Your task to perform on an android device: What is the recent news? Image 0: 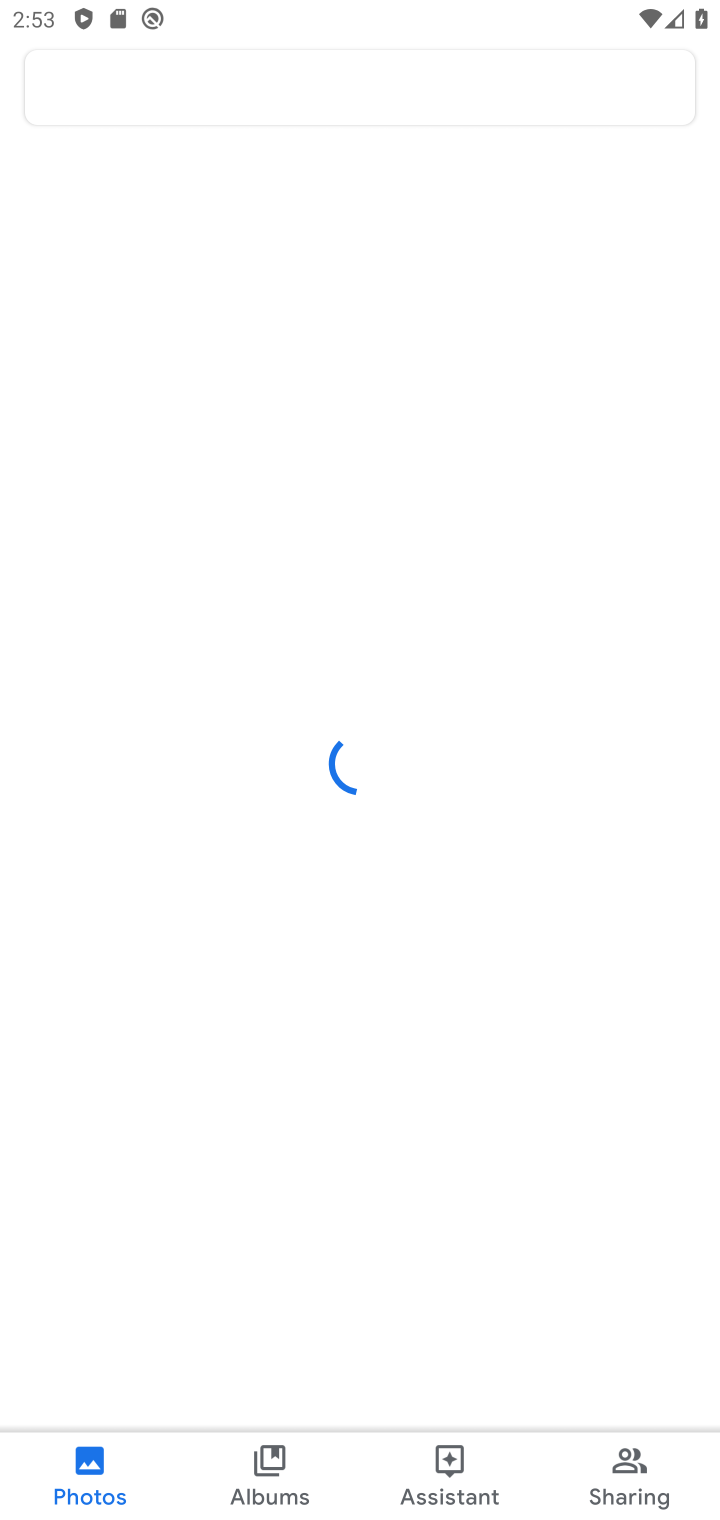
Step 0: press back button
Your task to perform on an android device: What is the recent news? Image 1: 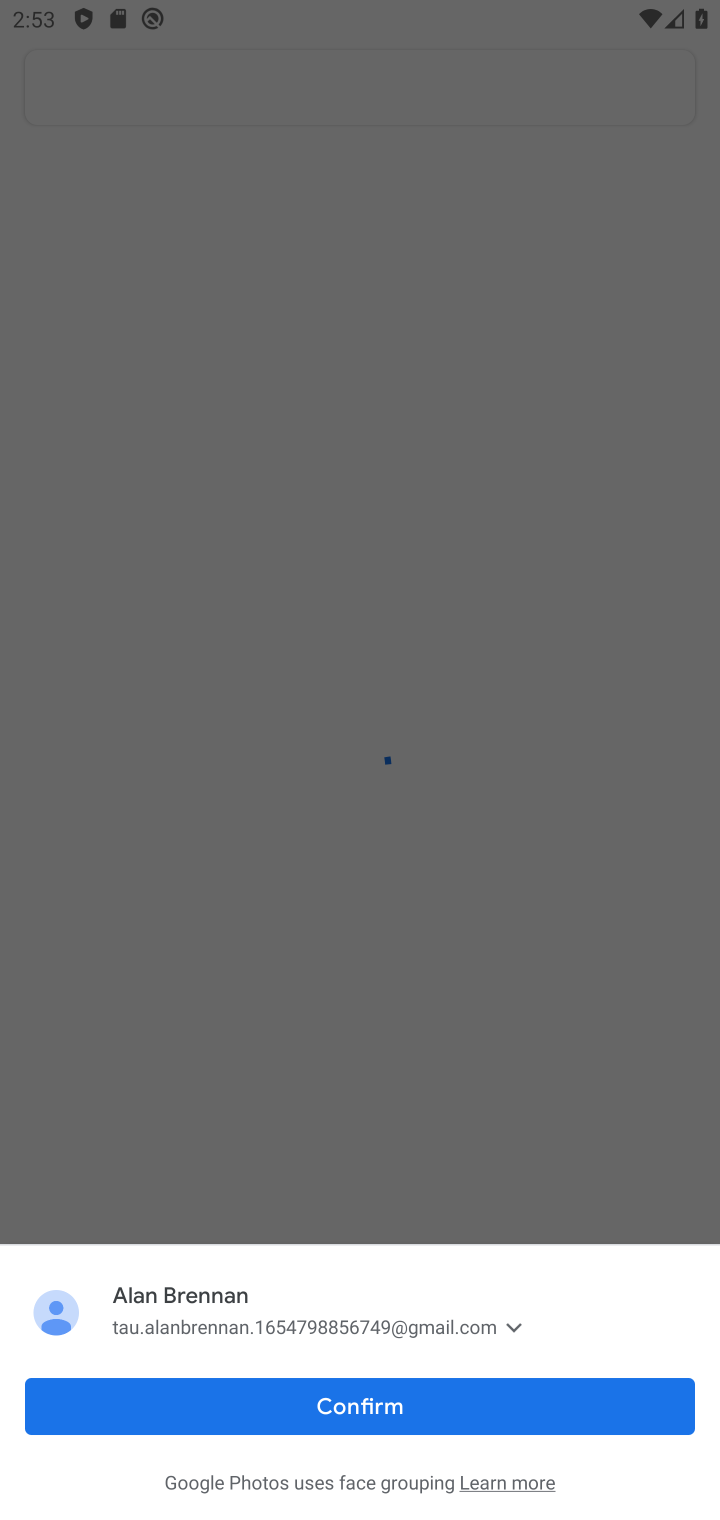
Step 1: press home button
Your task to perform on an android device: What is the recent news? Image 2: 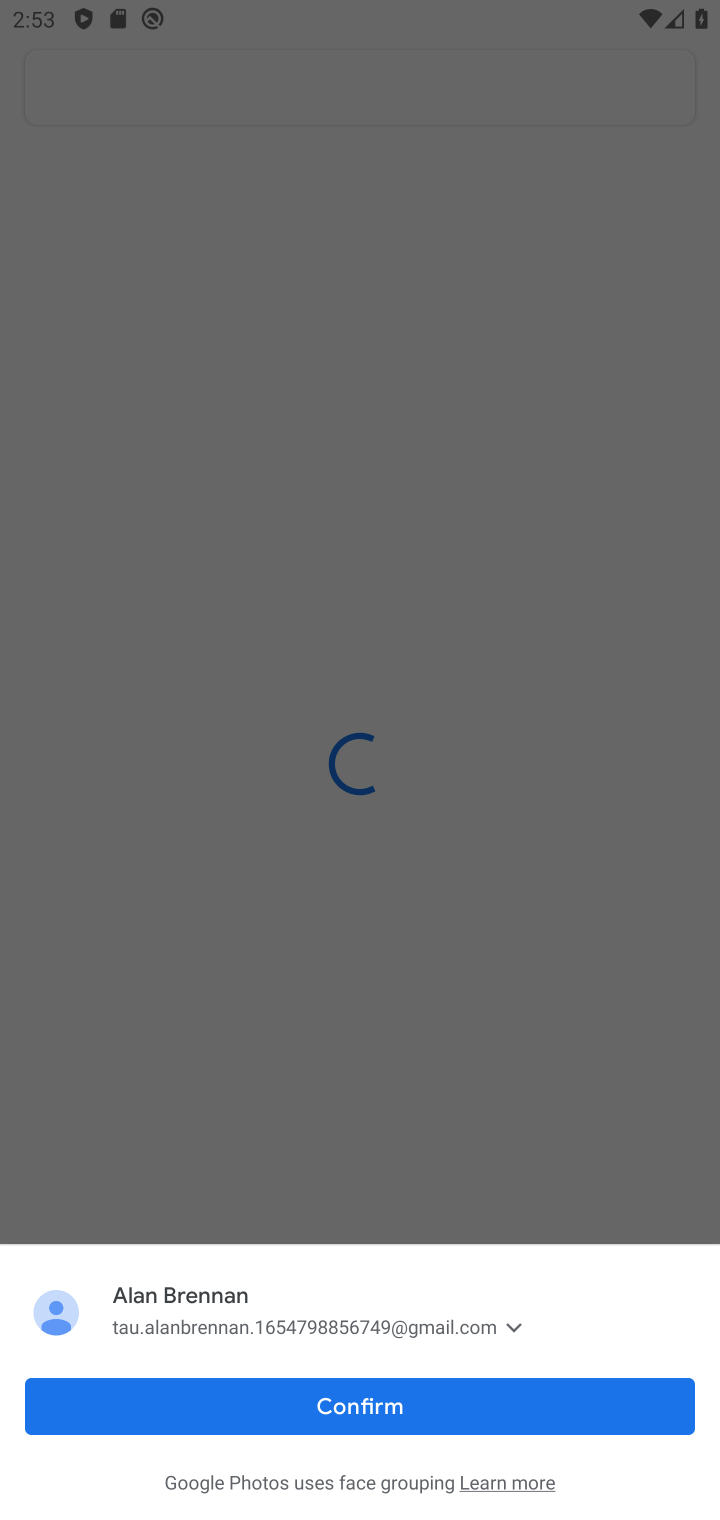
Step 2: click (225, 98)
Your task to perform on an android device: What is the recent news? Image 3: 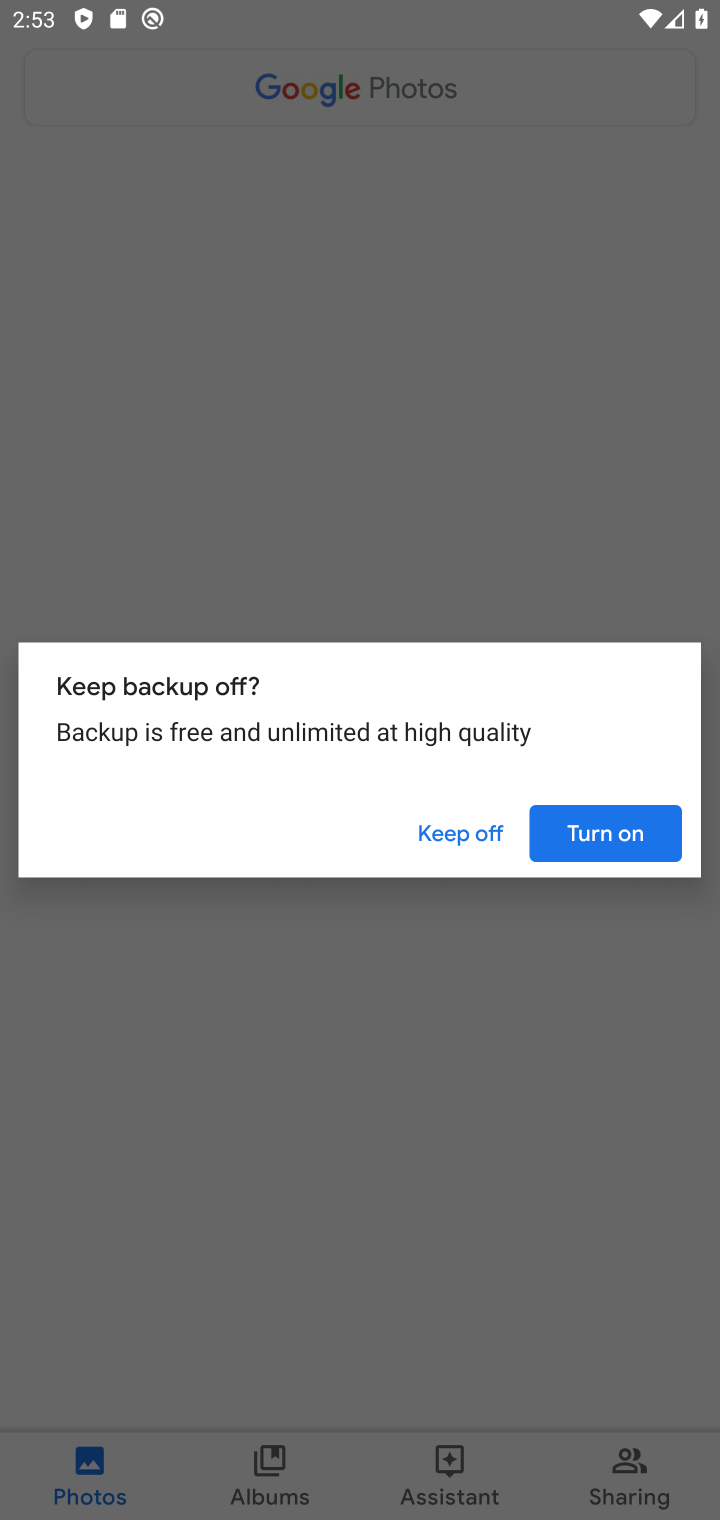
Step 3: press back button
Your task to perform on an android device: What is the recent news? Image 4: 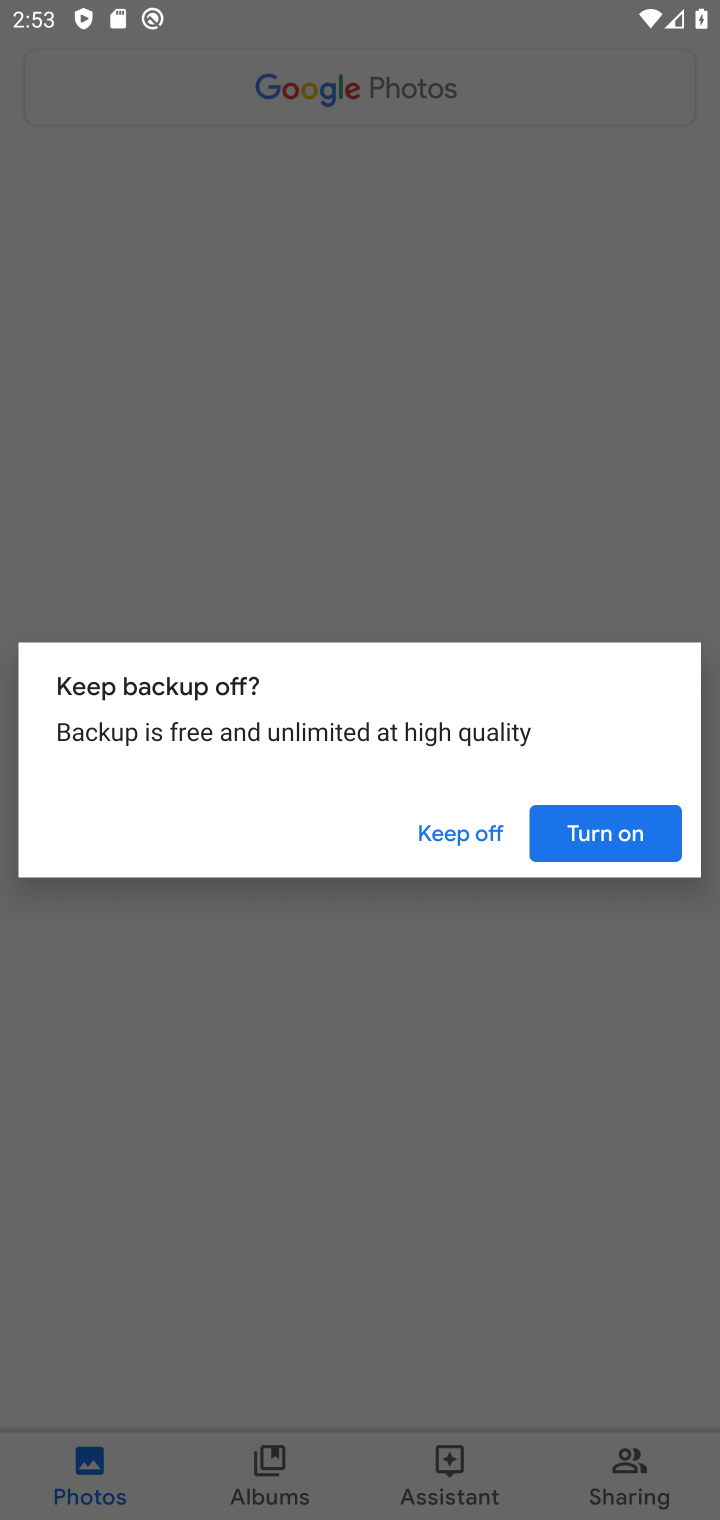
Step 4: click (441, 812)
Your task to perform on an android device: What is the recent news? Image 5: 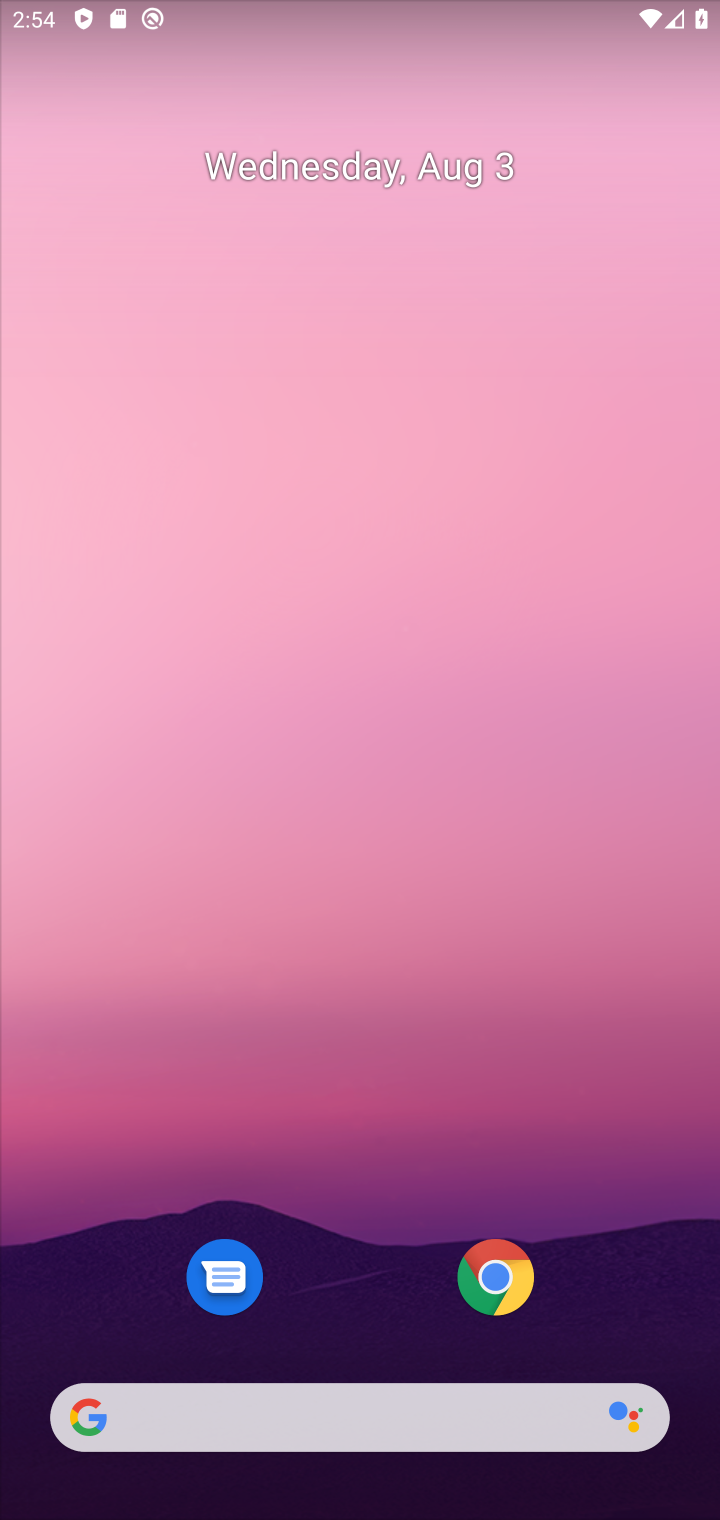
Step 5: drag from (225, 790) to (83, 88)
Your task to perform on an android device: What is the recent news? Image 6: 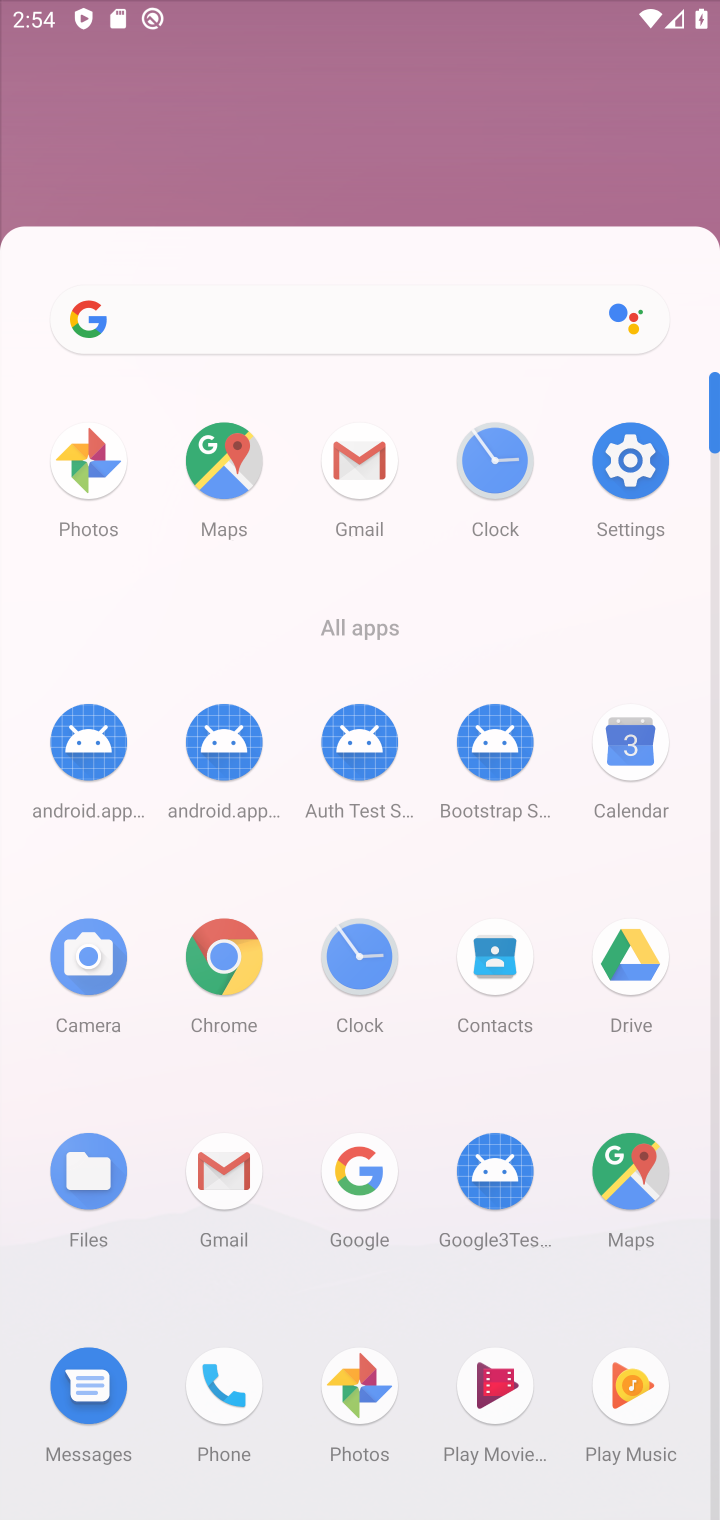
Step 6: drag from (367, 542) to (207, 42)
Your task to perform on an android device: What is the recent news? Image 7: 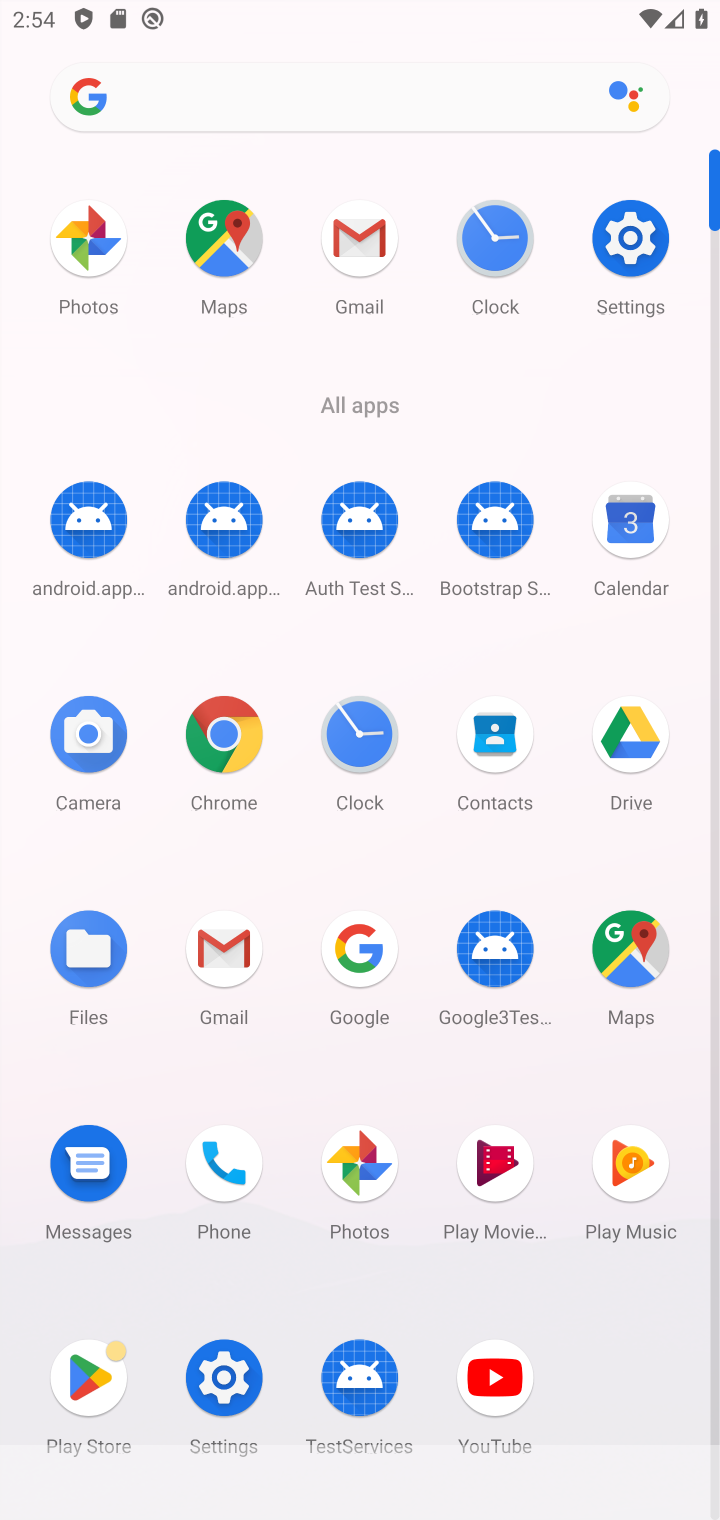
Step 7: click (225, 735)
Your task to perform on an android device: What is the recent news? Image 8: 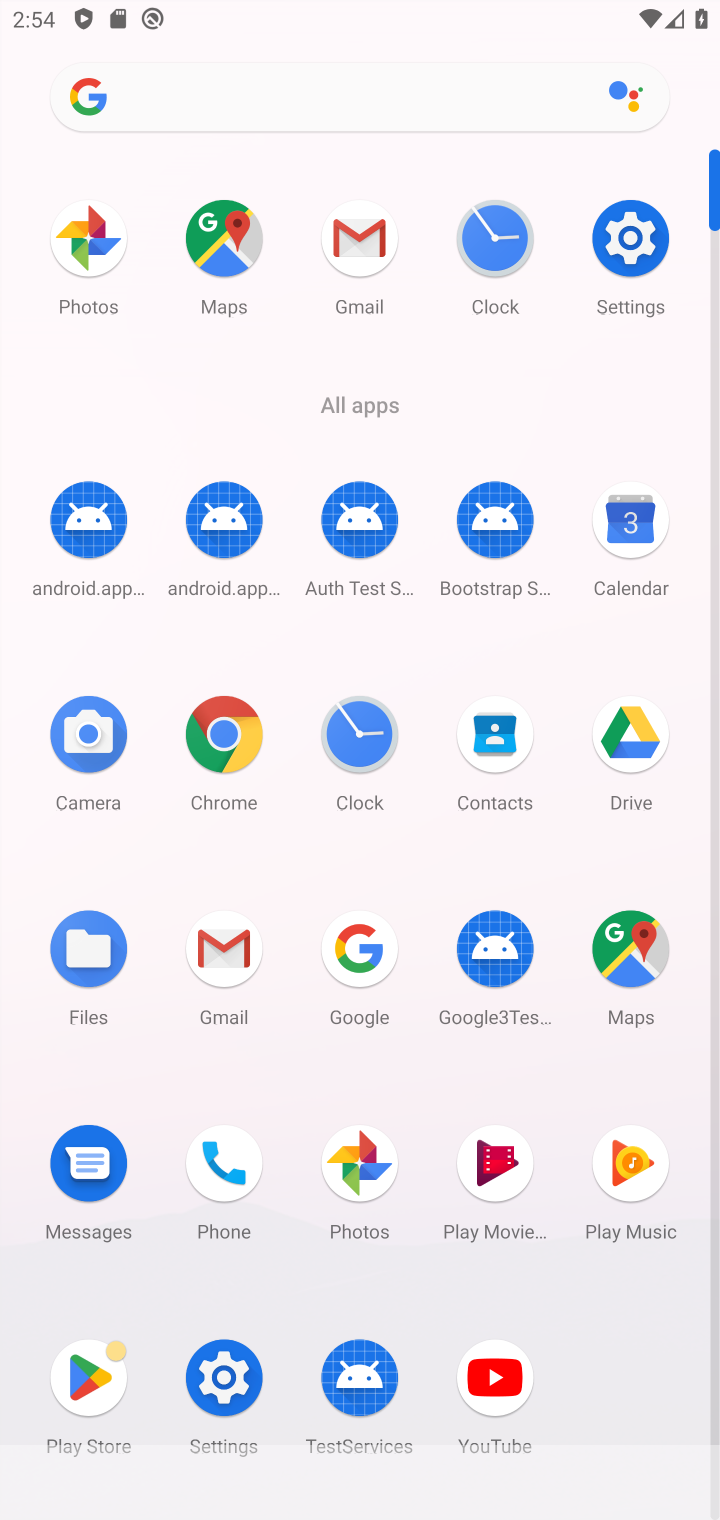
Step 8: click (223, 733)
Your task to perform on an android device: What is the recent news? Image 9: 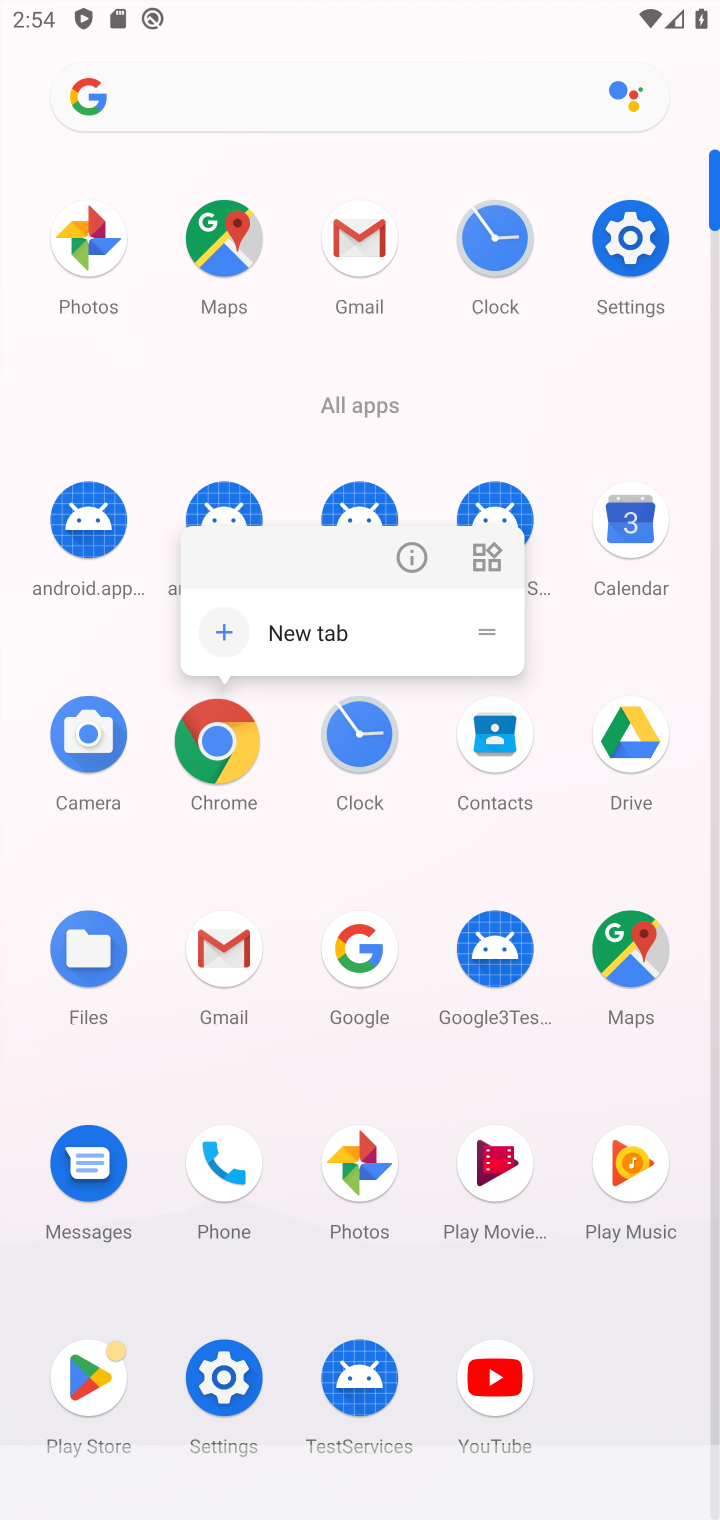
Step 9: click (312, 630)
Your task to perform on an android device: What is the recent news? Image 10: 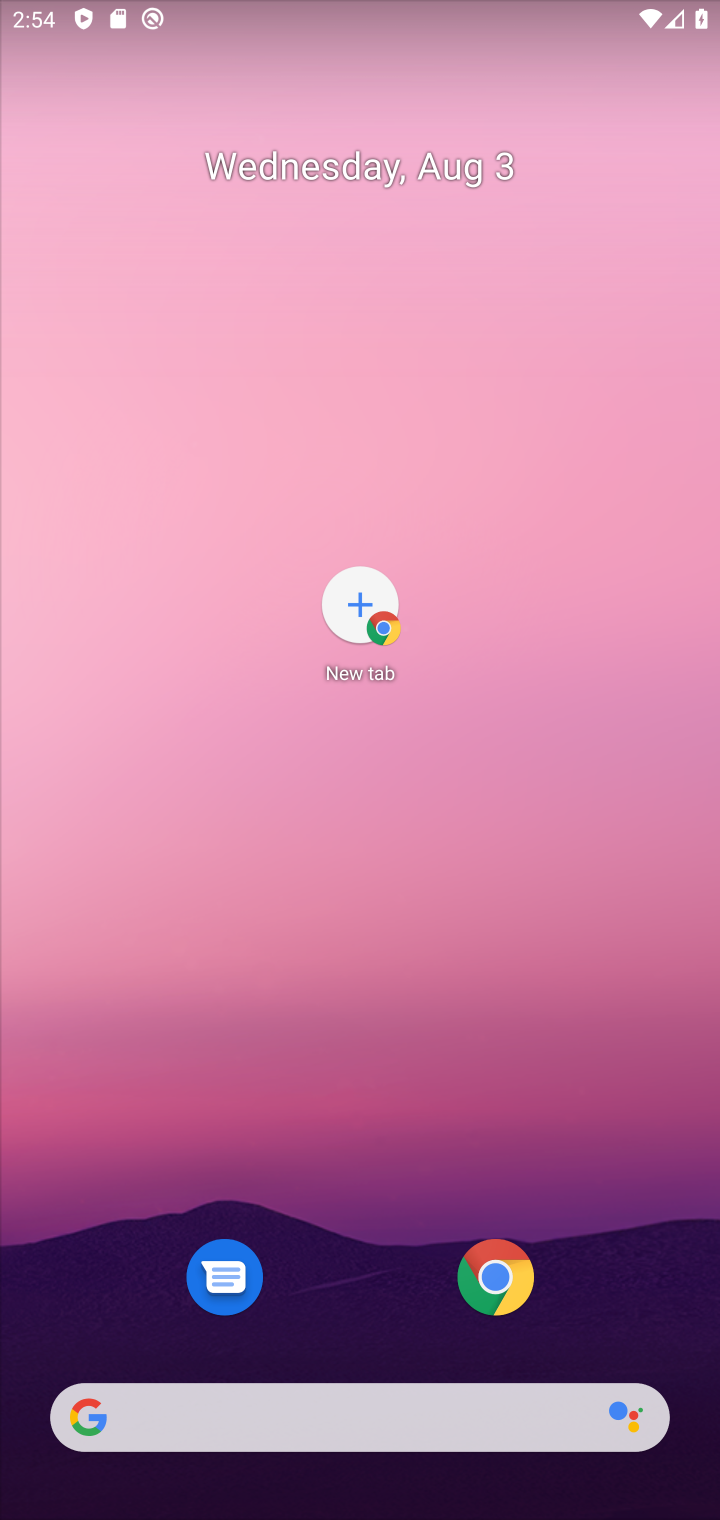
Step 10: click (256, 0)
Your task to perform on an android device: What is the recent news? Image 11: 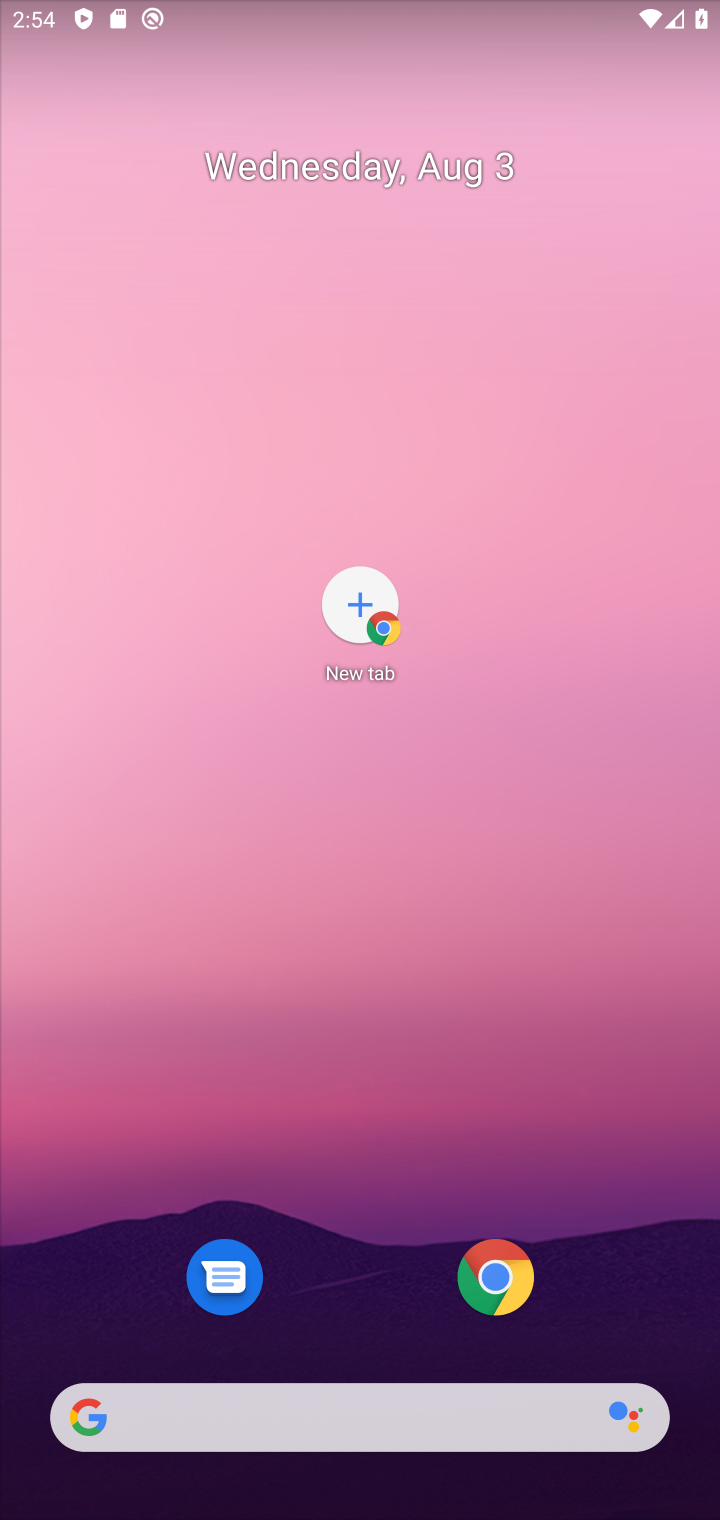
Step 11: drag from (295, 337) to (239, 51)
Your task to perform on an android device: What is the recent news? Image 12: 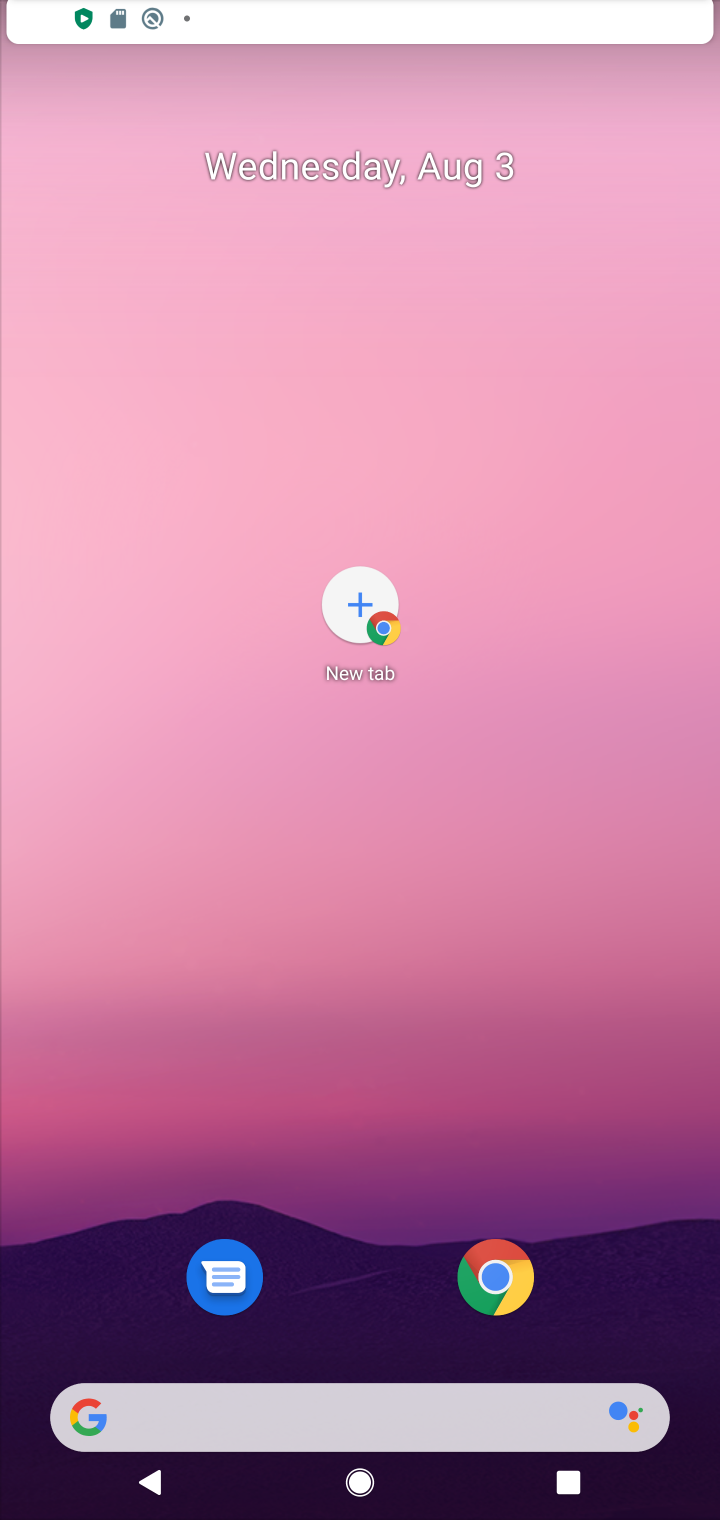
Step 12: click (423, 69)
Your task to perform on an android device: What is the recent news? Image 13: 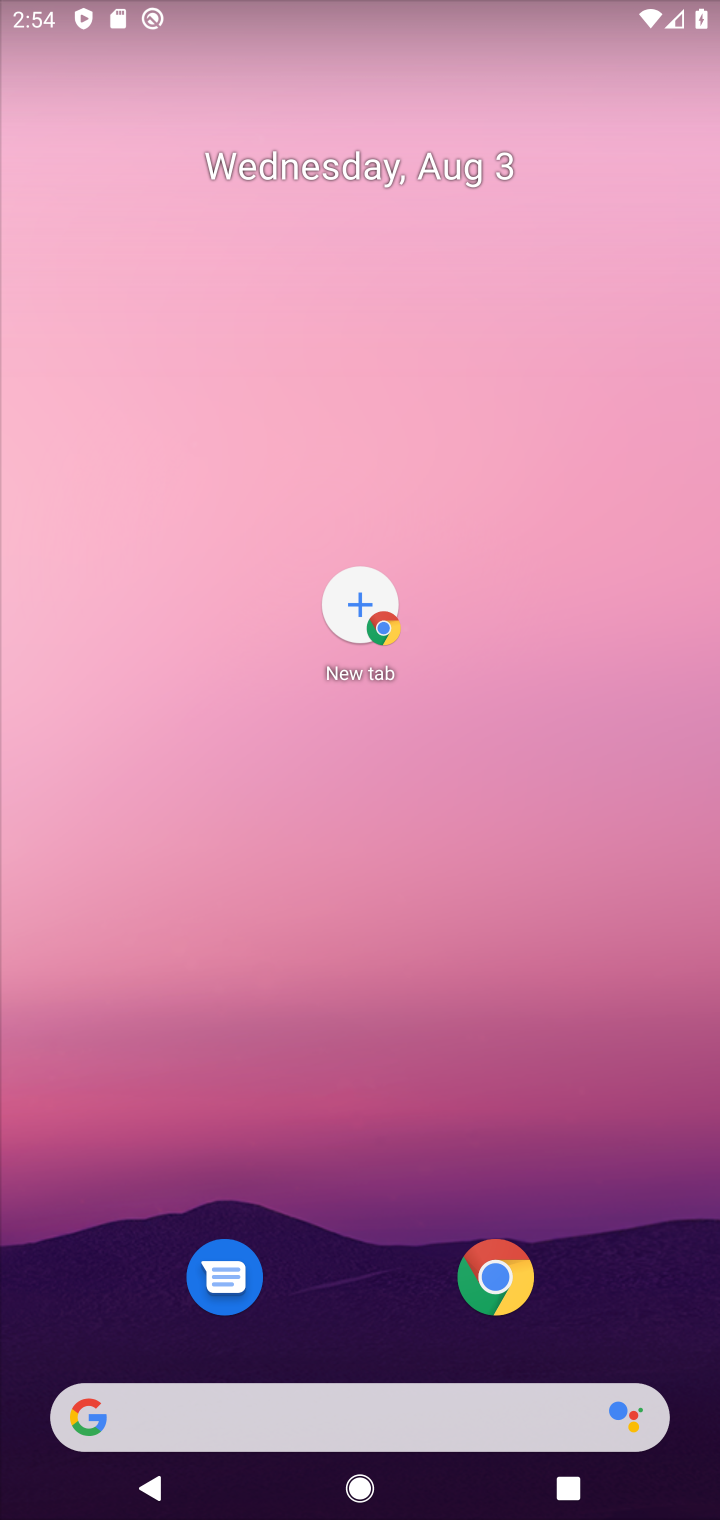
Step 13: drag from (434, 911) to (256, 130)
Your task to perform on an android device: What is the recent news? Image 14: 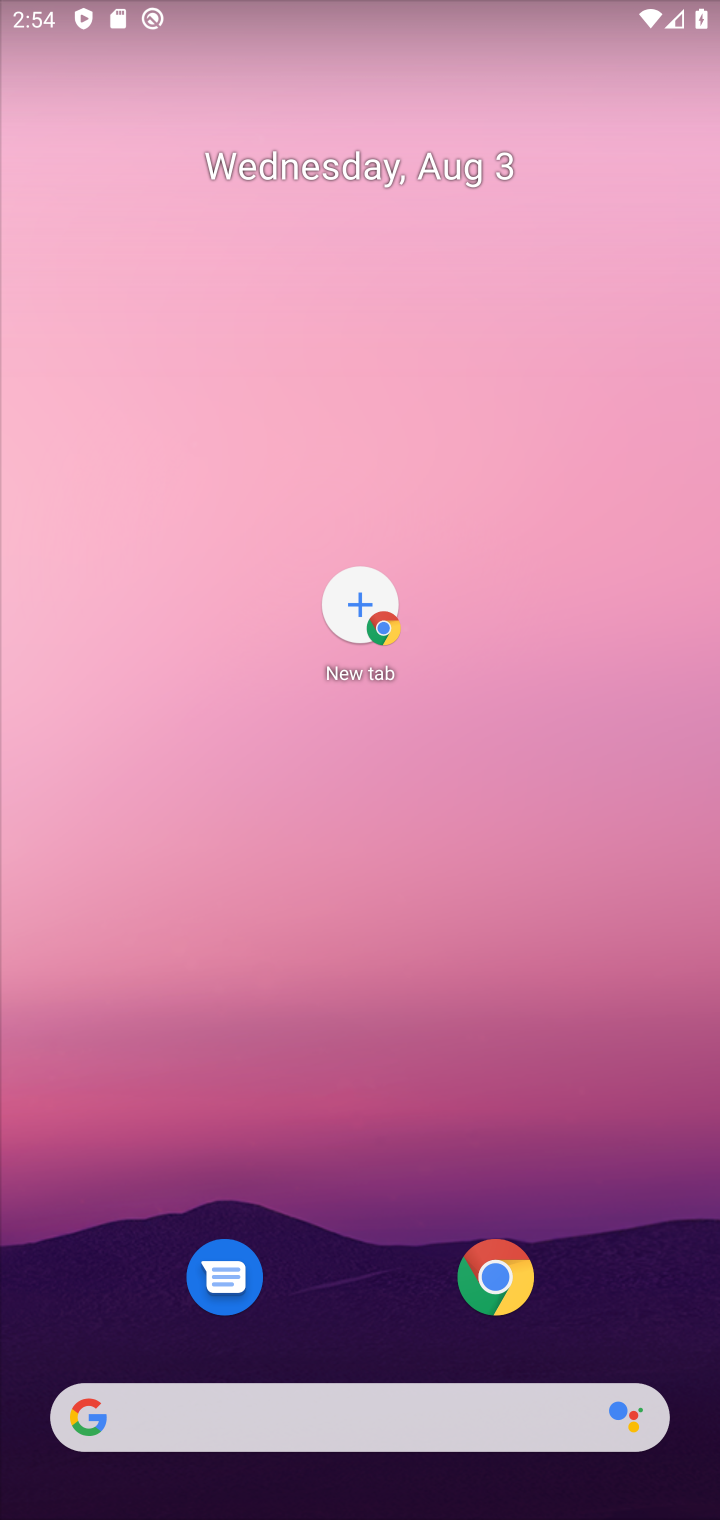
Step 14: drag from (502, 888) to (369, 15)
Your task to perform on an android device: What is the recent news? Image 15: 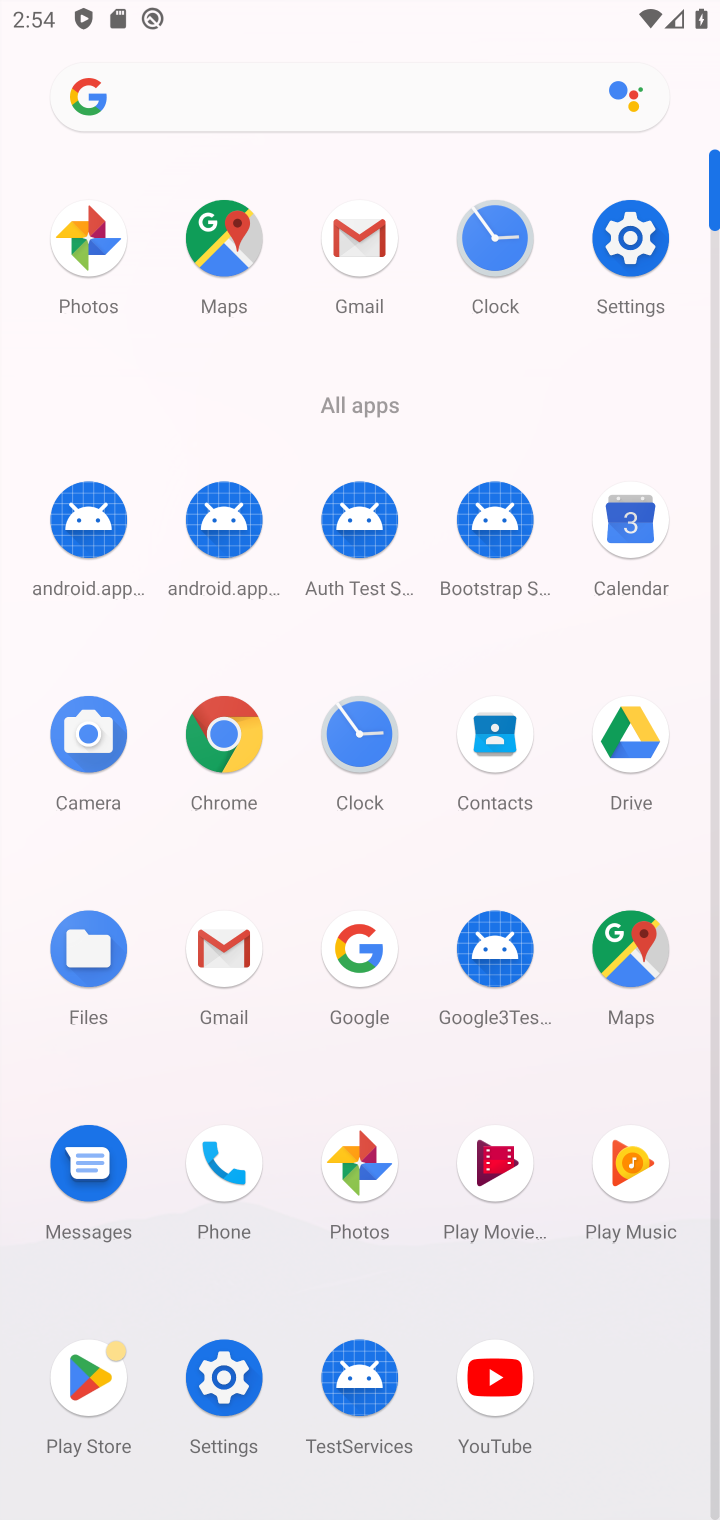
Step 15: click (211, 726)
Your task to perform on an android device: What is the recent news? Image 16: 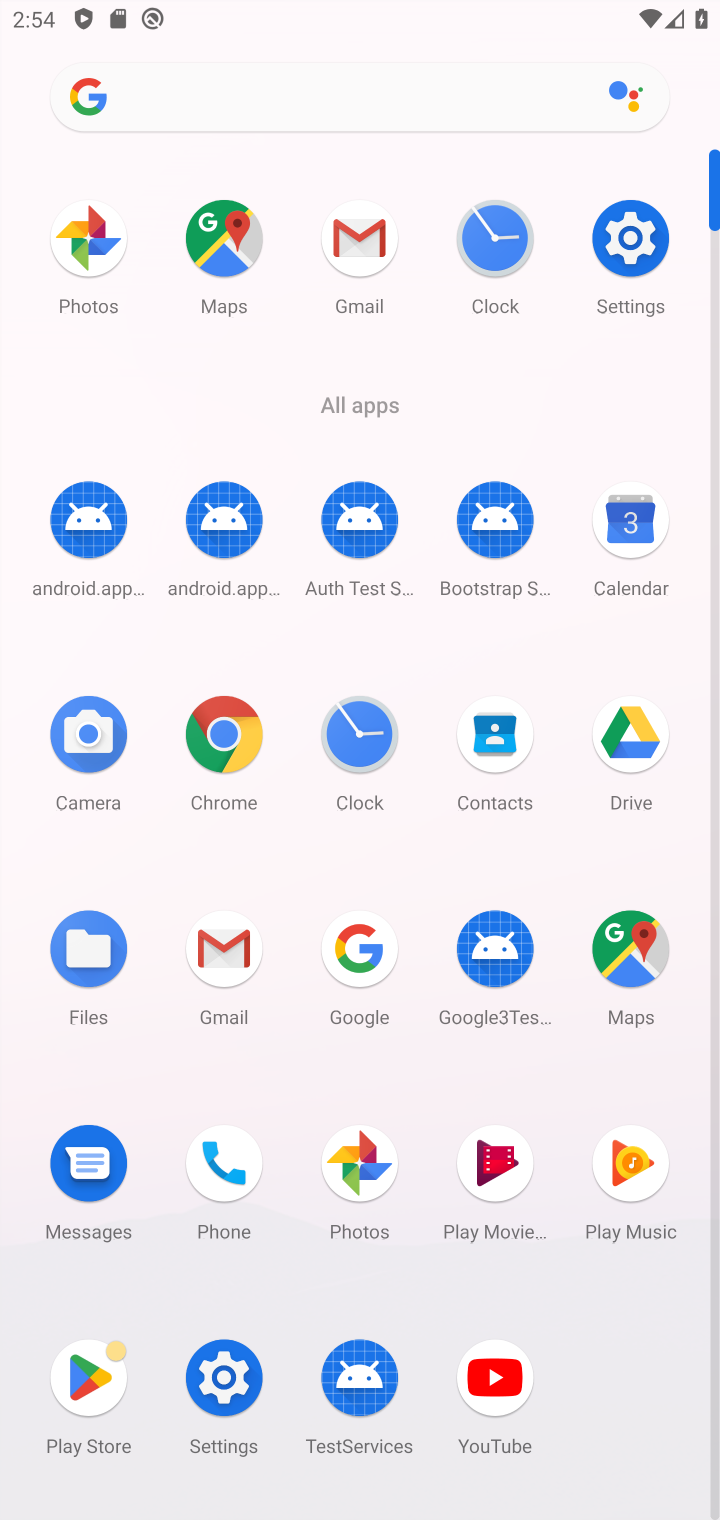
Step 16: click (207, 730)
Your task to perform on an android device: What is the recent news? Image 17: 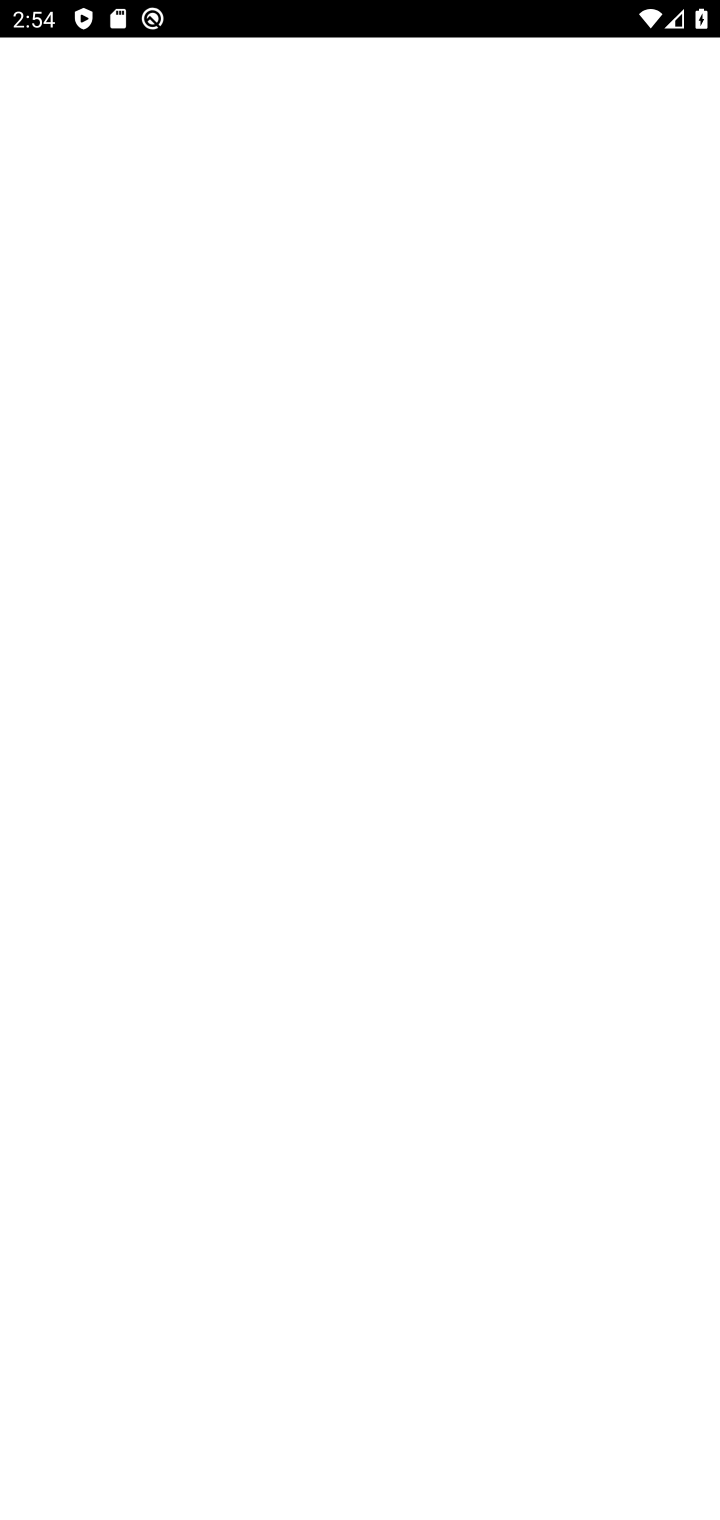
Step 17: click (222, 734)
Your task to perform on an android device: What is the recent news? Image 18: 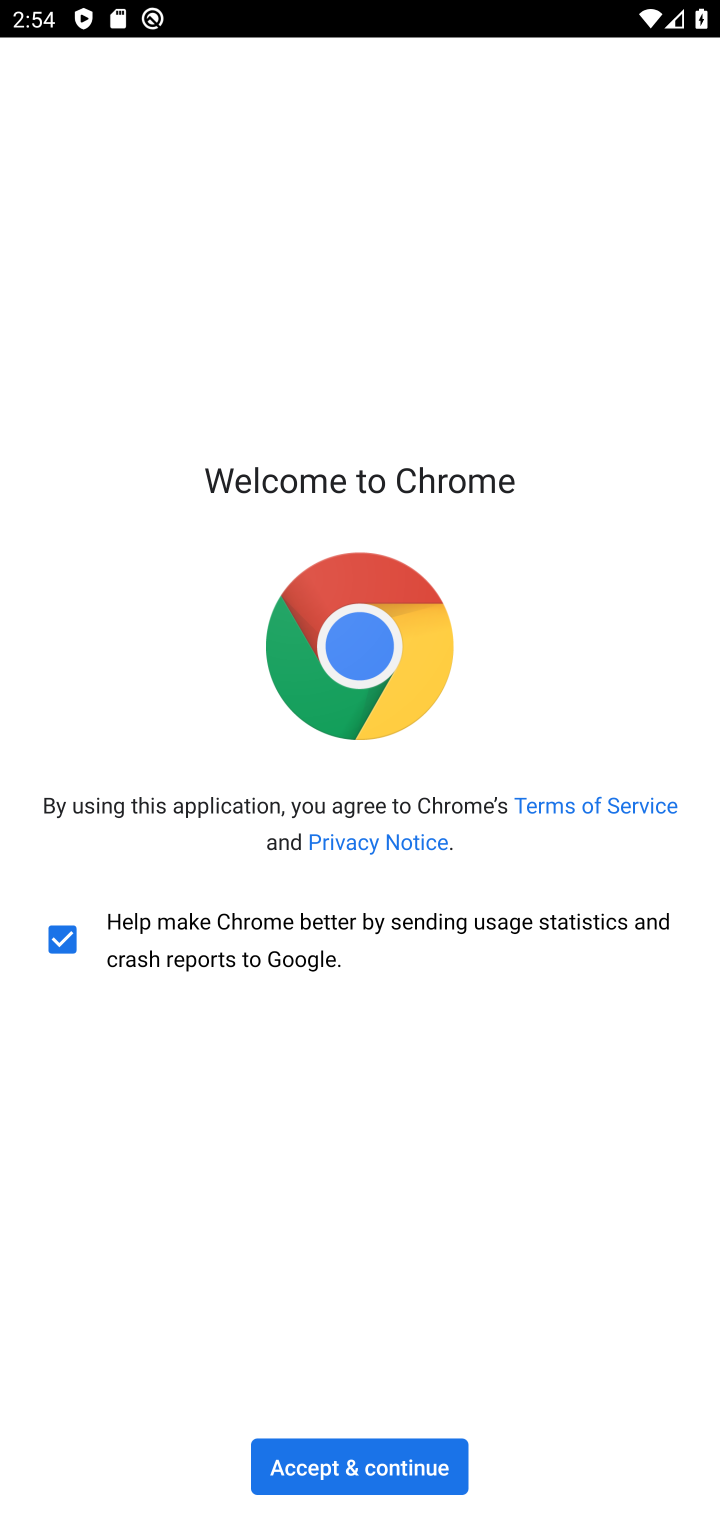
Step 18: click (342, 1462)
Your task to perform on an android device: What is the recent news? Image 19: 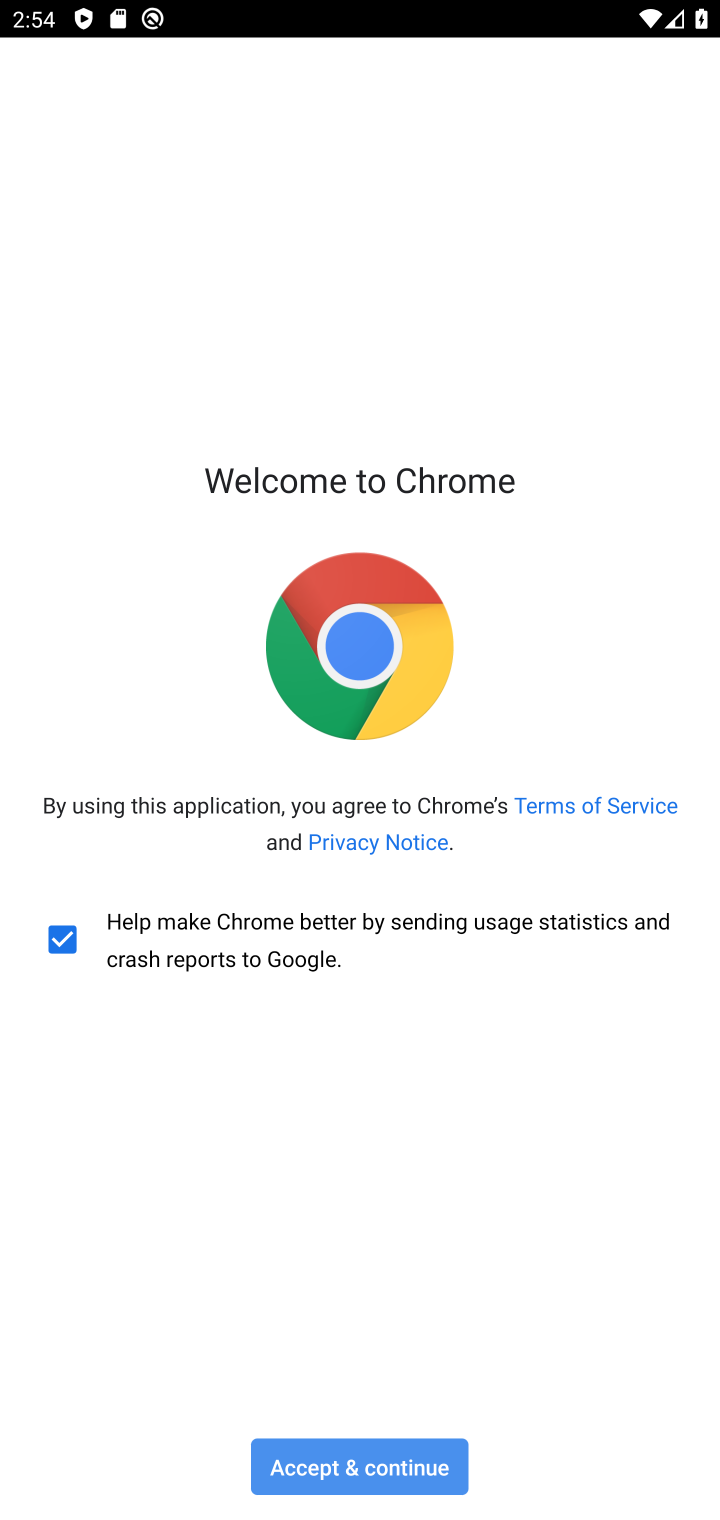
Step 19: click (349, 1456)
Your task to perform on an android device: What is the recent news? Image 20: 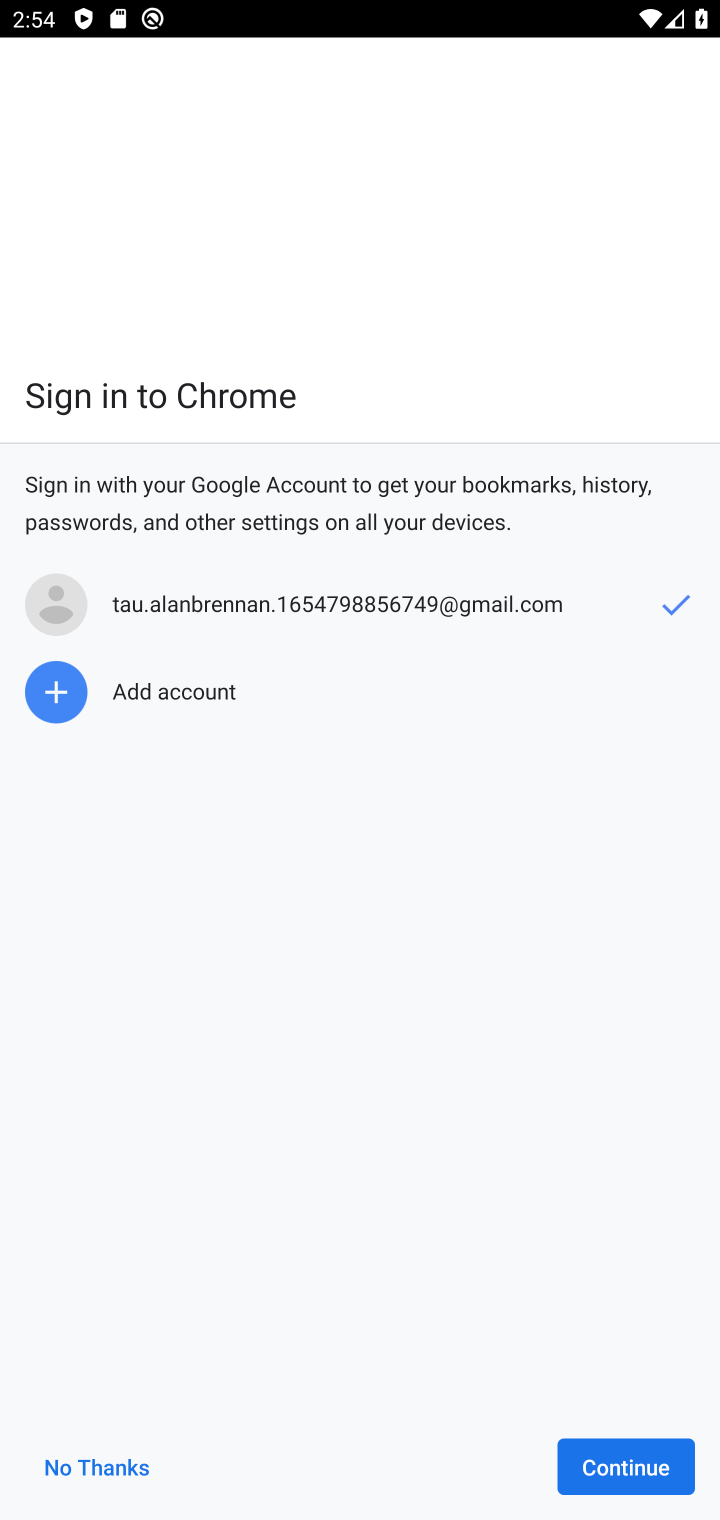
Step 20: click (113, 1449)
Your task to perform on an android device: What is the recent news? Image 21: 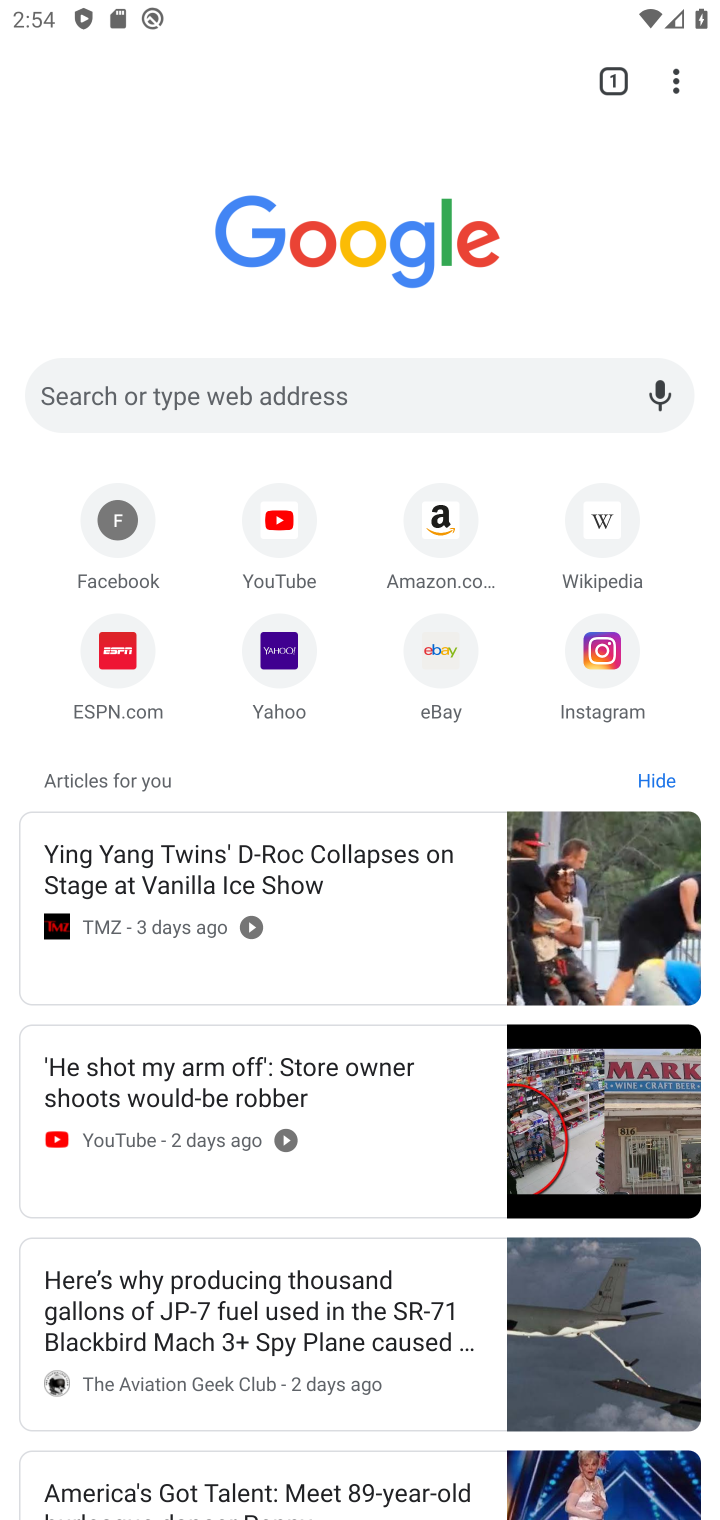
Step 21: task complete